Your task to perform on an android device: Open the map Image 0: 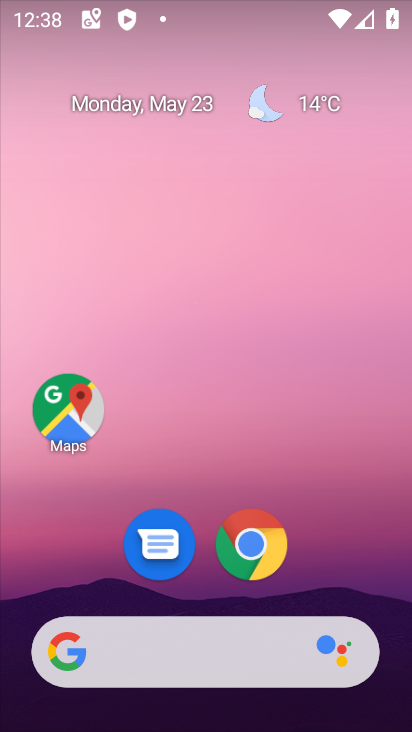
Step 0: click (63, 421)
Your task to perform on an android device: Open the map Image 1: 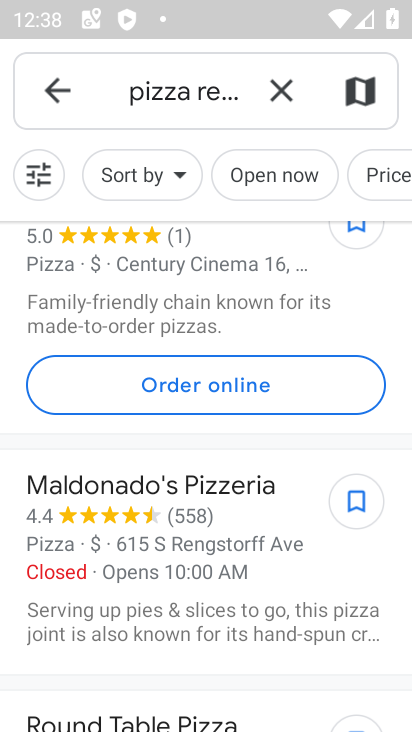
Step 1: task complete